Your task to perform on an android device: open app "HBO Max: Stream TV & Movies" (install if not already installed) and go to login screen Image 0: 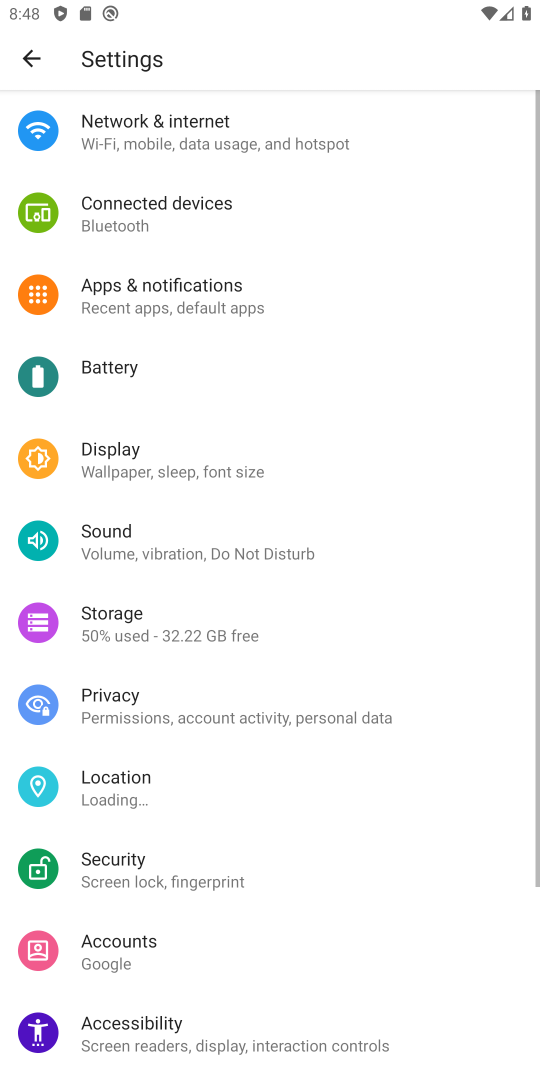
Step 0: click (196, 66)
Your task to perform on an android device: open app "HBO Max: Stream TV & Movies" (install if not already installed) and go to login screen Image 1: 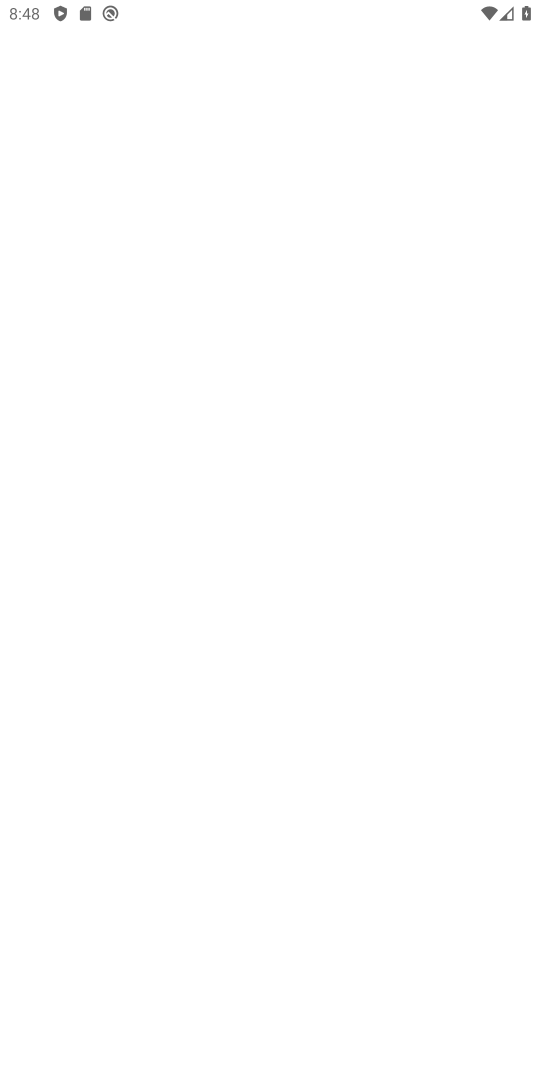
Step 1: press home button
Your task to perform on an android device: open app "HBO Max: Stream TV & Movies" (install if not already installed) and go to login screen Image 2: 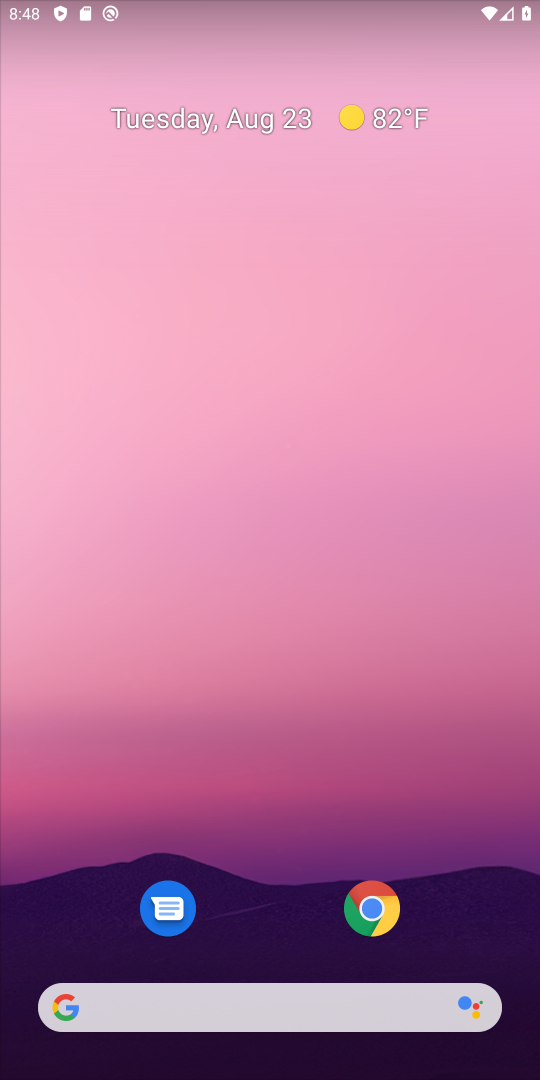
Step 2: drag from (271, 948) to (206, 16)
Your task to perform on an android device: open app "HBO Max: Stream TV & Movies" (install if not already installed) and go to login screen Image 3: 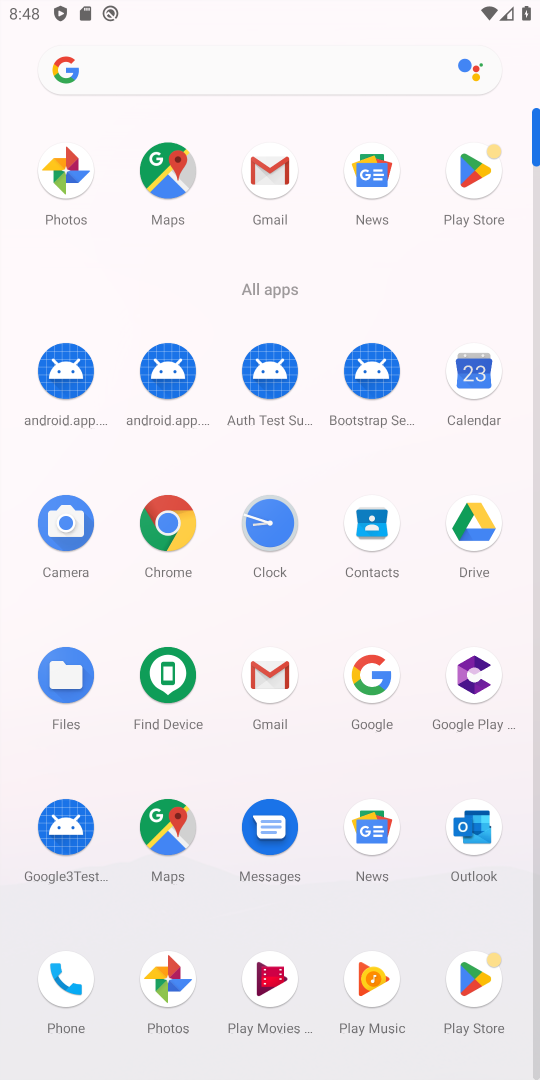
Step 3: click (477, 196)
Your task to perform on an android device: open app "HBO Max: Stream TV & Movies" (install if not already installed) and go to login screen Image 4: 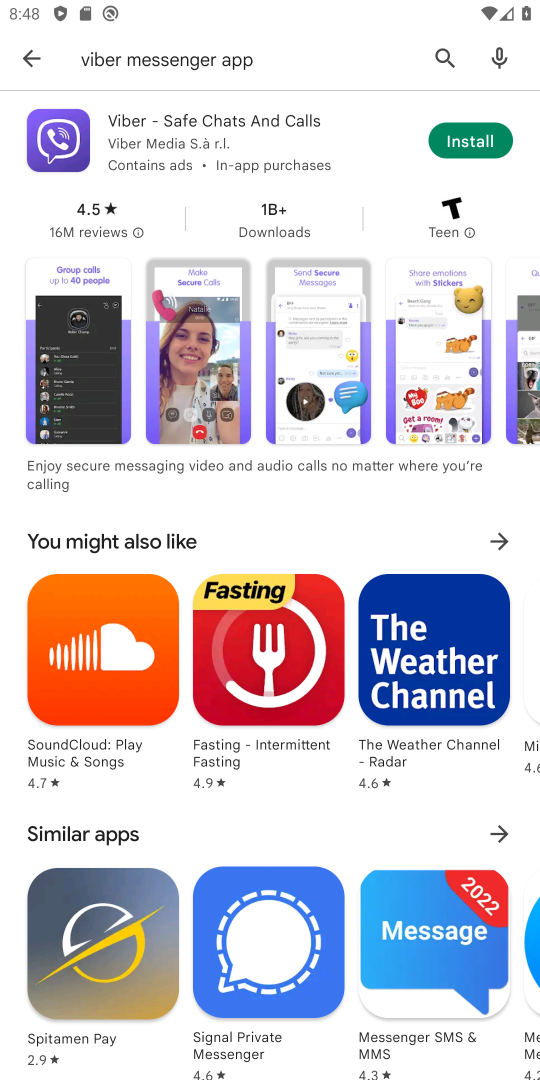
Step 4: click (164, 59)
Your task to perform on an android device: open app "HBO Max: Stream TV & Movies" (install if not already installed) and go to login screen Image 5: 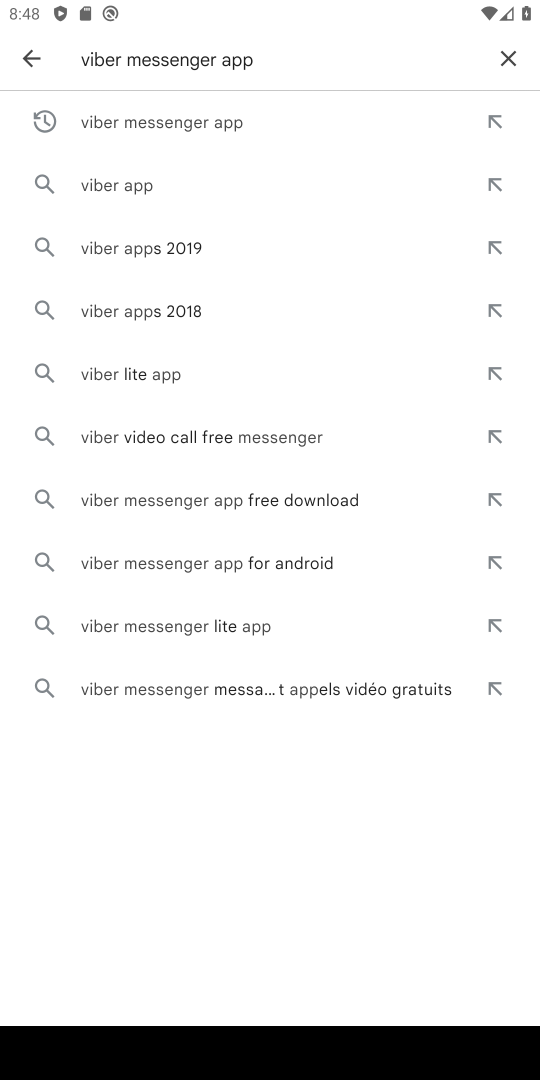
Step 5: click (507, 54)
Your task to perform on an android device: open app "HBO Max: Stream TV & Movies" (install if not already installed) and go to login screen Image 6: 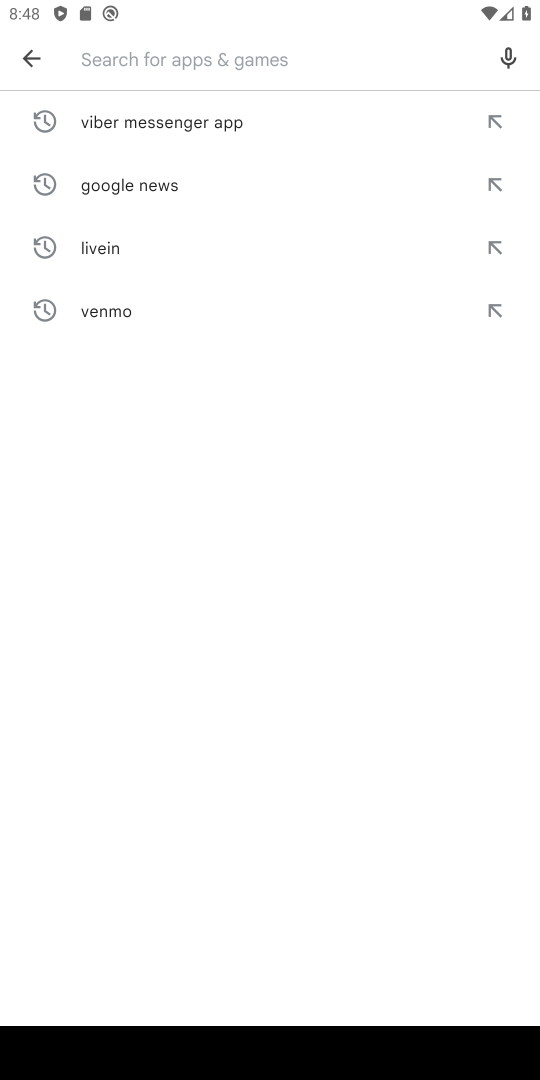
Step 6: type "HBO Max"
Your task to perform on an android device: open app "HBO Max: Stream TV & Movies" (install if not already installed) and go to login screen Image 7: 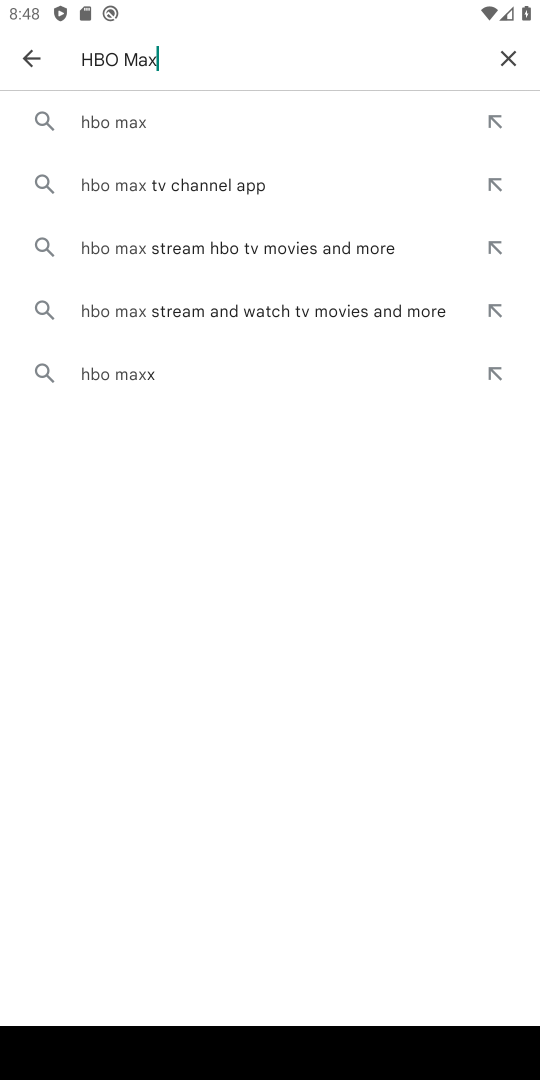
Step 7: click (135, 117)
Your task to perform on an android device: open app "HBO Max: Stream TV & Movies" (install if not already installed) and go to login screen Image 8: 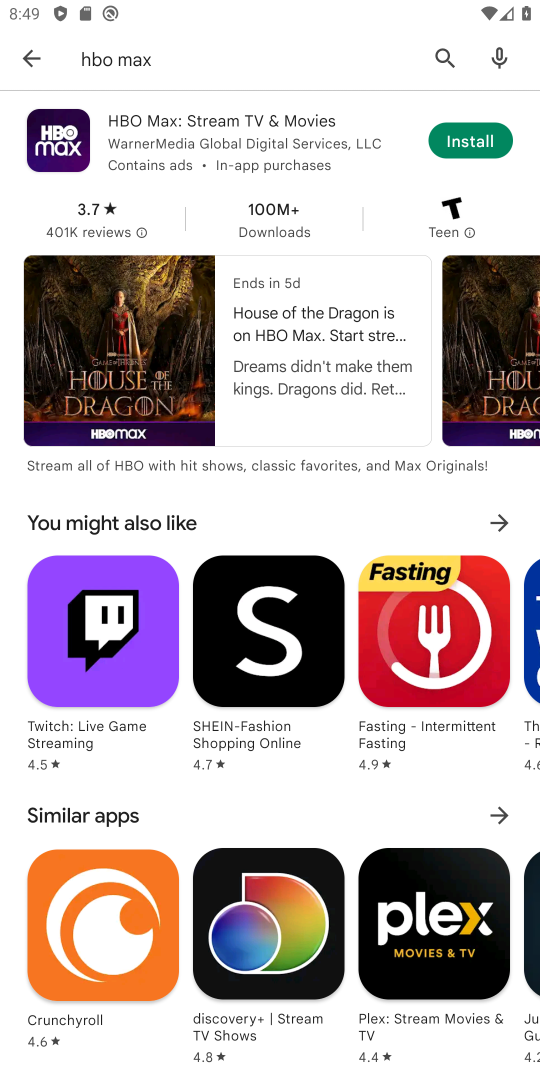
Step 8: click (453, 143)
Your task to perform on an android device: open app "HBO Max: Stream TV & Movies" (install if not already installed) and go to login screen Image 9: 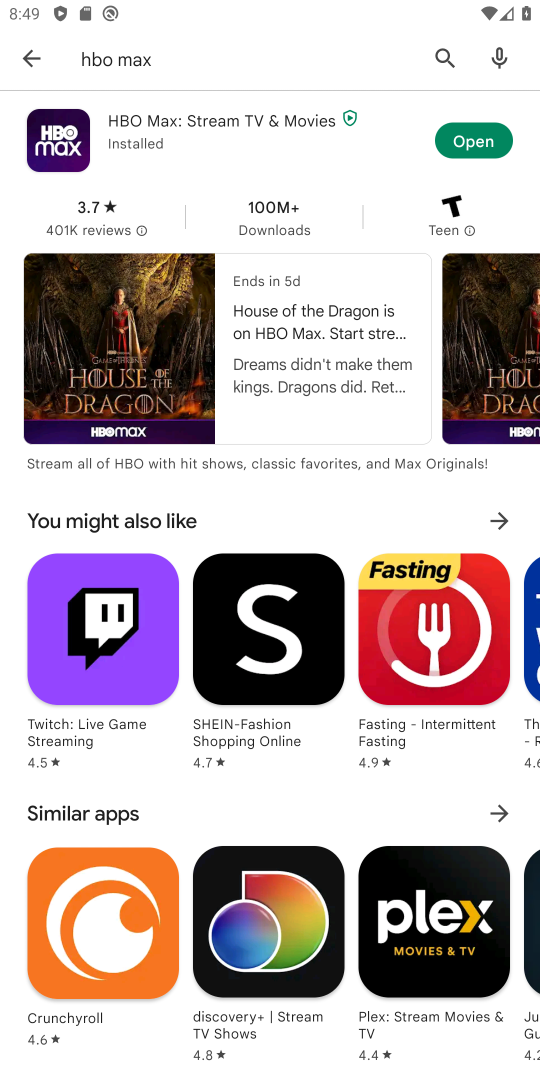
Step 9: click (480, 143)
Your task to perform on an android device: open app "HBO Max: Stream TV & Movies" (install if not already installed) and go to login screen Image 10: 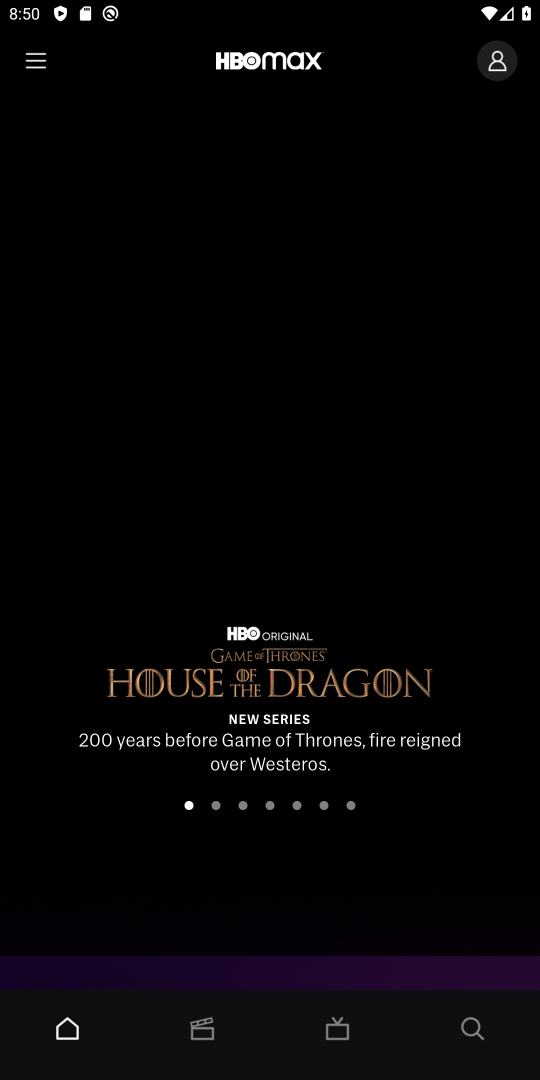
Step 10: click (504, 58)
Your task to perform on an android device: open app "HBO Max: Stream TV & Movies" (install if not already installed) and go to login screen Image 11: 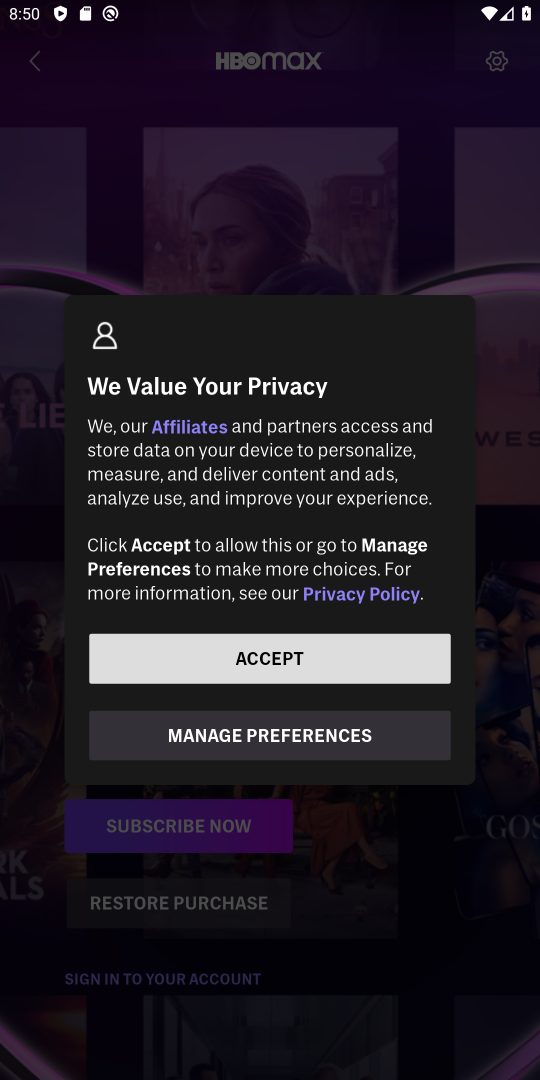
Step 11: click (289, 661)
Your task to perform on an android device: open app "HBO Max: Stream TV & Movies" (install if not already installed) and go to login screen Image 12: 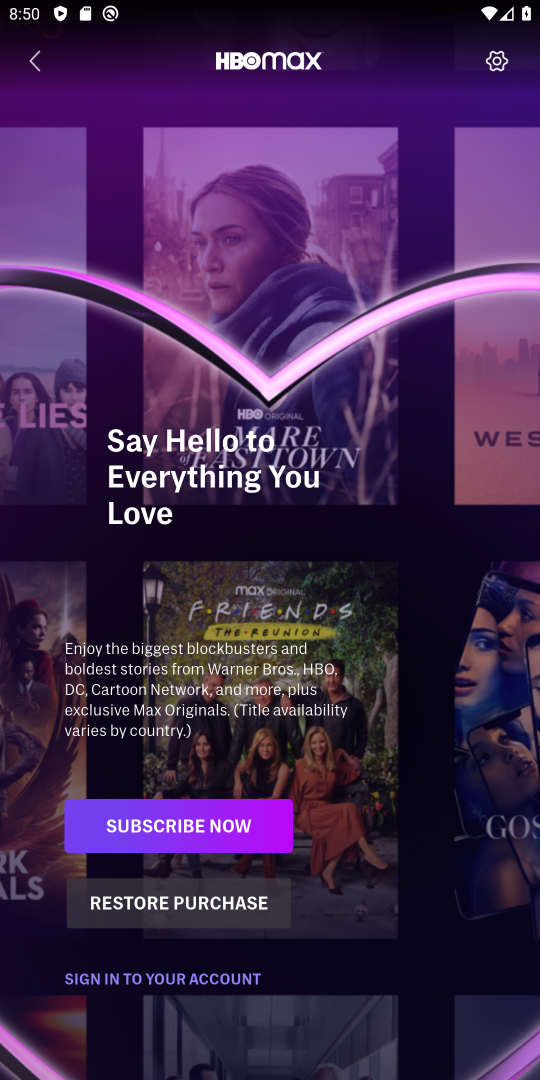
Step 12: click (143, 982)
Your task to perform on an android device: open app "HBO Max: Stream TV & Movies" (install if not already installed) and go to login screen Image 13: 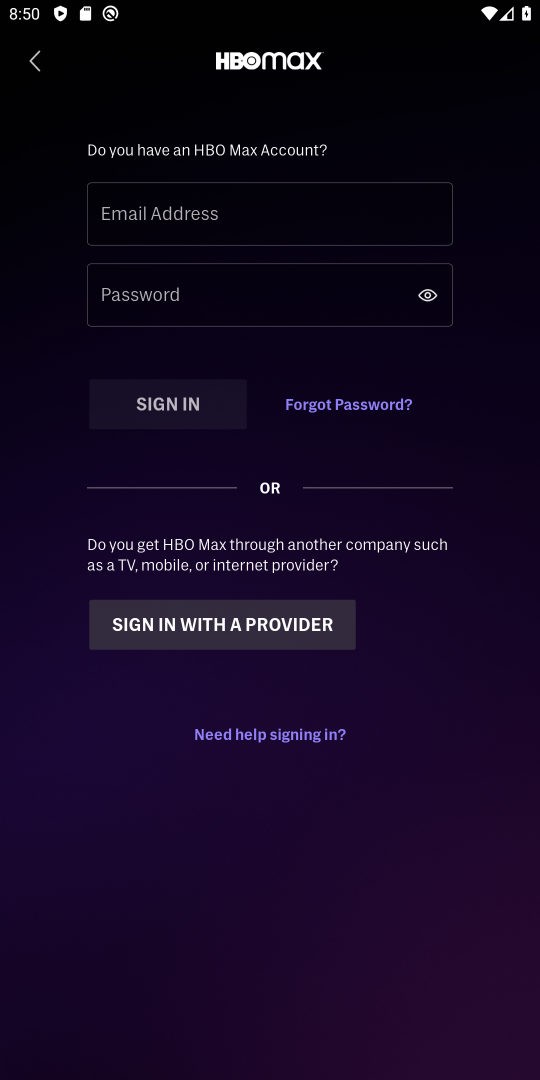
Step 13: task complete